Your task to perform on an android device: turn off data saver in the chrome app Image 0: 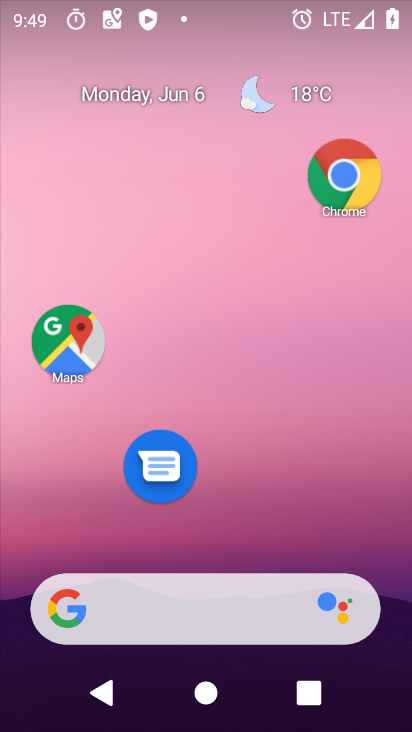
Step 0: drag from (253, 375) to (312, 4)
Your task to perform on an android device: turn off data saver in the chrome app Image 1: 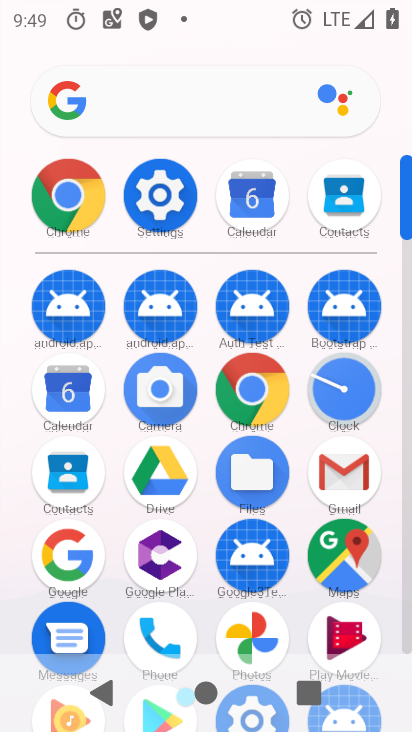
Step 1: click (248, 378)
Your task to perform on an android device: turn off data saver in the chrome app Image 2: 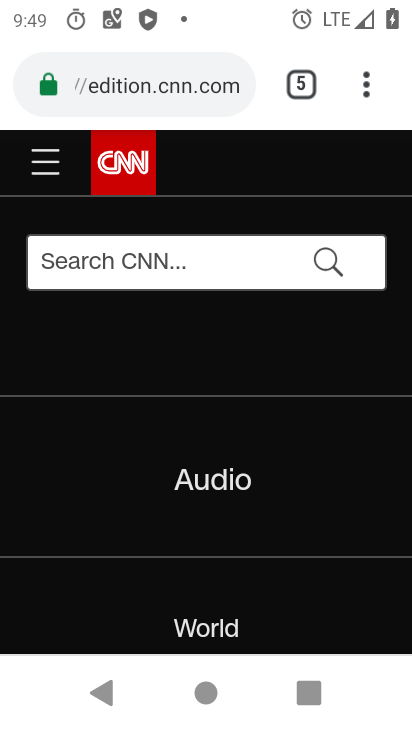
Step 2: drag from (367, 74) to (108, 528)
Your task to perform on an android device: turn off data saver in the chrome app Image 3: 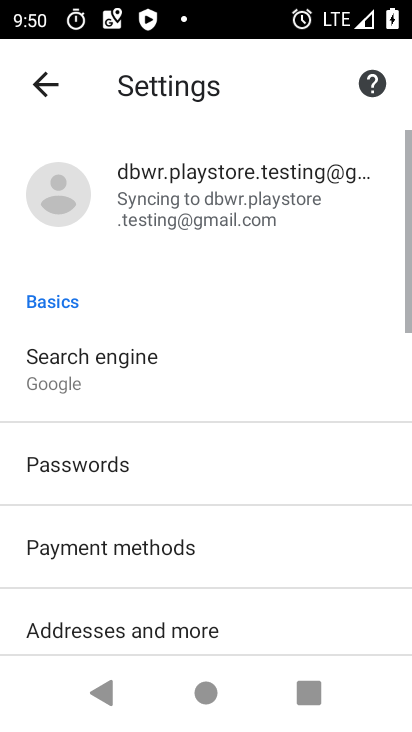
Step 3: drag from (214, 577) to (280, 117)
Your task to perform on an android device: turn off data saver in the chrome app Image 4: 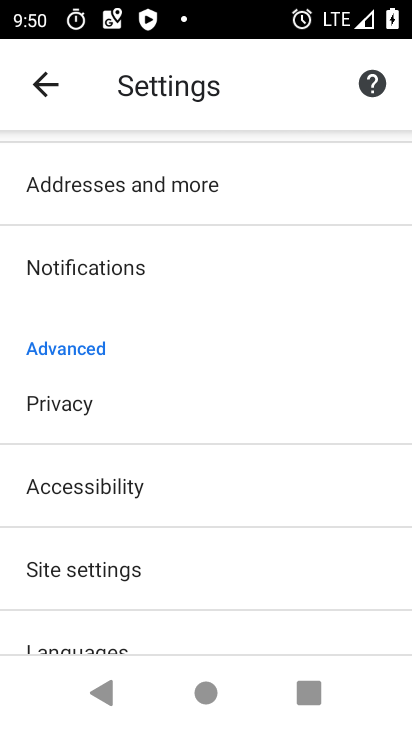
Step 4: drag from (162, 586) to (278, 126)
Your task to perform on an android device: turn off data saver in the chrome app Image 5: 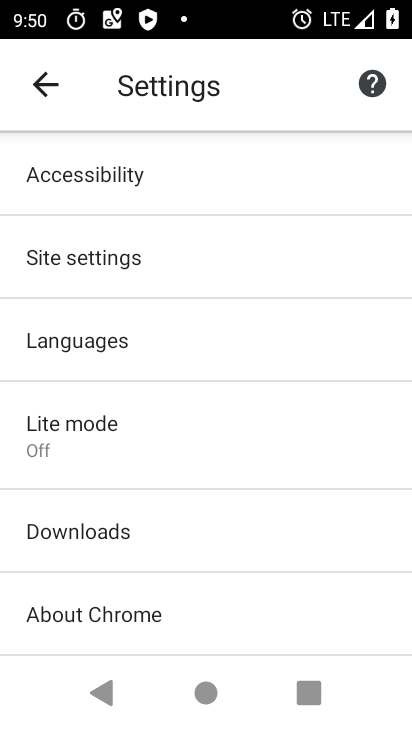
Step 5: click (202, 444)
Your task to perform on an android device: turn off data saver in the chrome app Image 6: 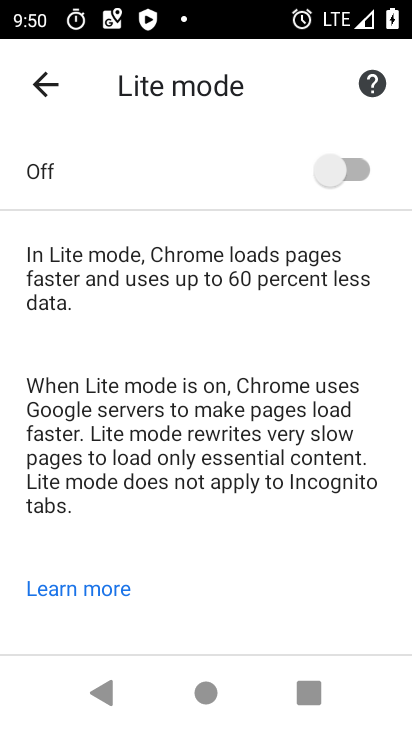
Step 6: task complete